Your task to perform on an android device: Open settings on Google Maps Image 0: 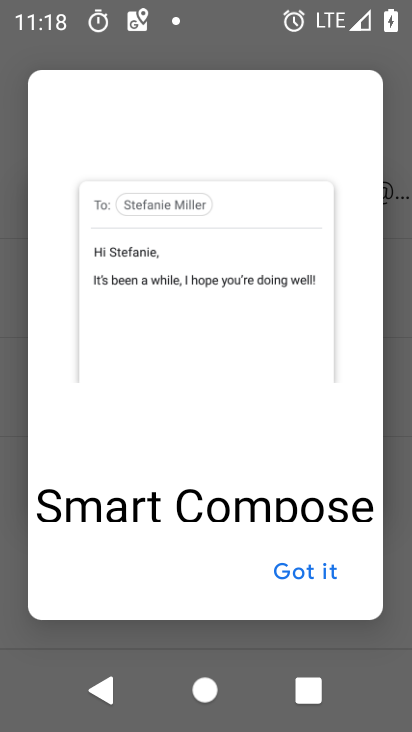
Step 0: press home button
Your task to perform on an android device: Open settings on Google Maps Image 1: 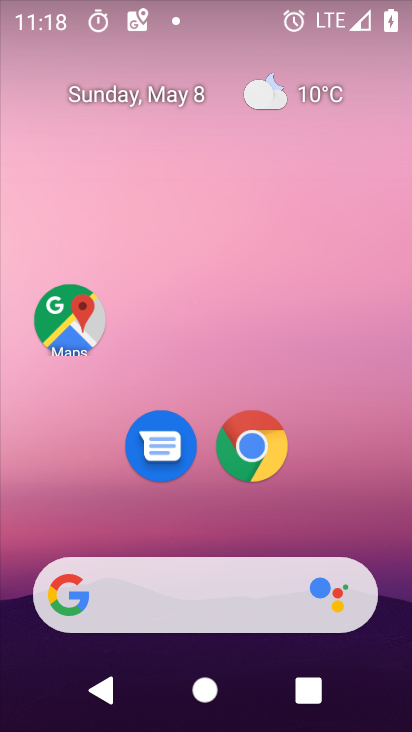
Step 1: click (69, 319)
Your task to perform on an android device: Open settings on Google Maps Image 2: 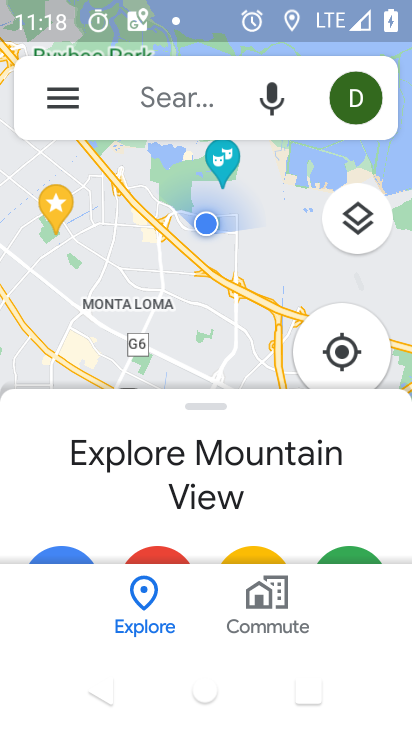
Step 2: click (45, 101)
Your task to perform on an android device: Open settings on Google Maps Image 3: 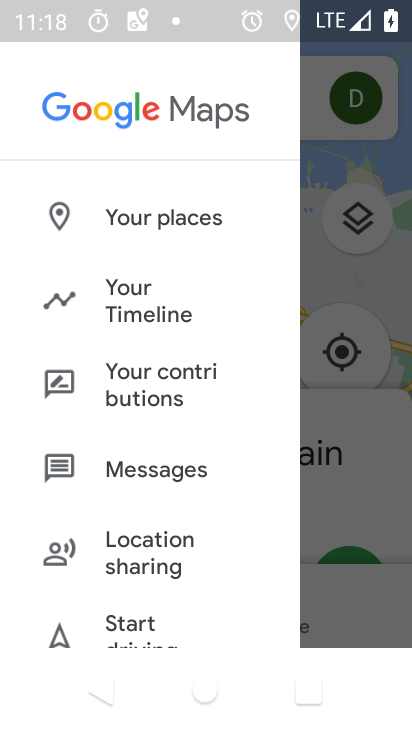
Step 3: drag from (253, 596) to (302, 146)
Your task to perform on an android device: Open settings on Google Maps Image 4: 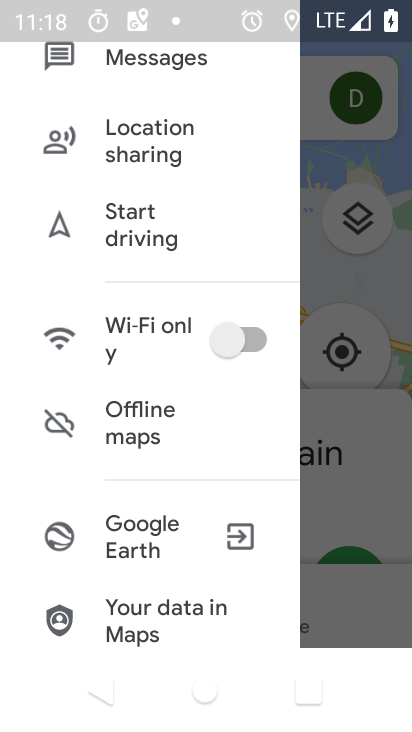
Step 4: drag from (200, 545) to (216, 205)
Your task to perform on an android device: Open settings on Google Maps Image 5: 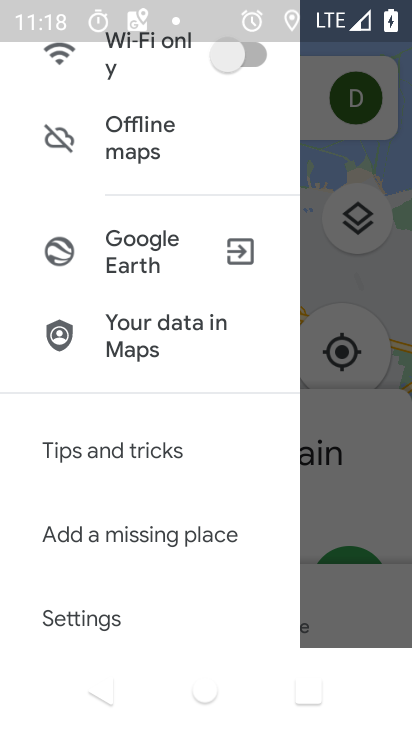
Step 5: click (82, 620)
Your task to perform on an android device: Open settings on Google Maps Image 6: 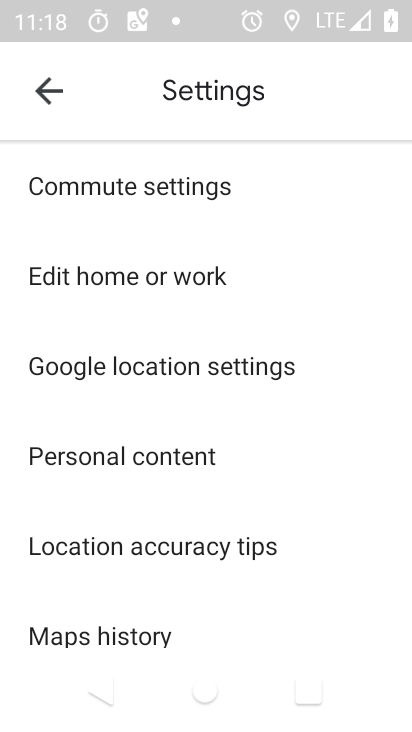
Step 6: task complete